Your task to perform on an android device: open a new tab in the chrome app Image 0: 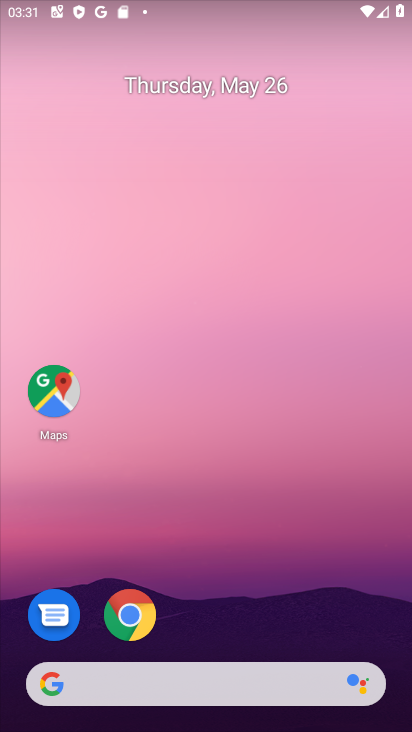
Step 0: click (132, 609)
Your task to perform on an android device: open a new tab in the chrome app Image 1: 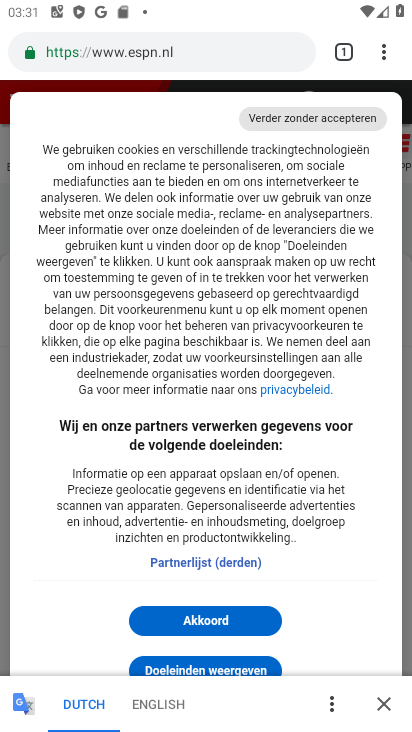
Step 1: click (343, 55)
Your task to perform on an android device: open a new tab in the chrome app Image 2: 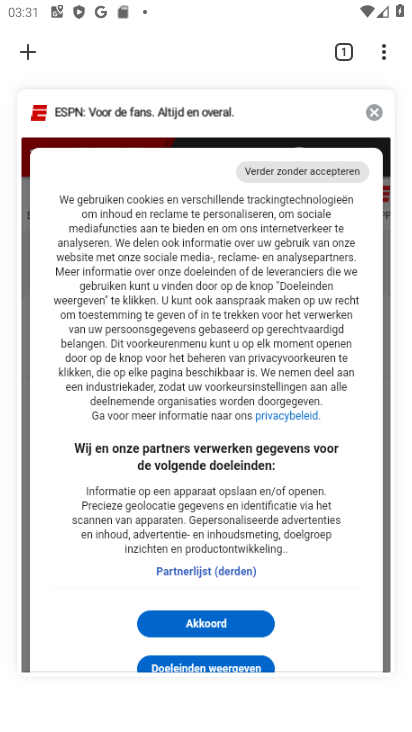
Step 2: click (28, 53)
Your task to perform on an android device: open a new tab in the chrome app Image 3: 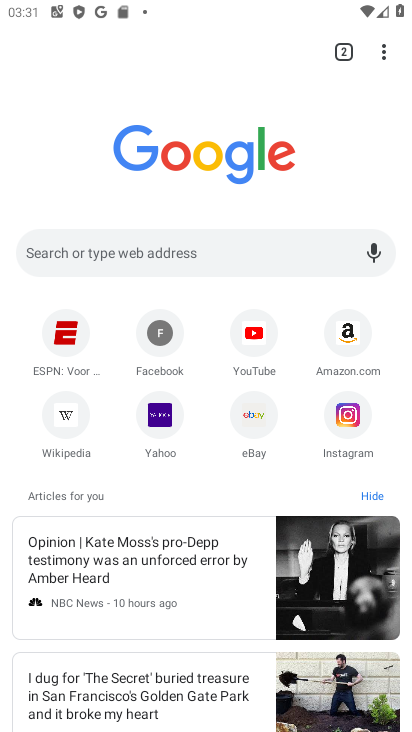
Step 3: task complete